Your task to perform on an android device: Open Google Chrome Image 0: 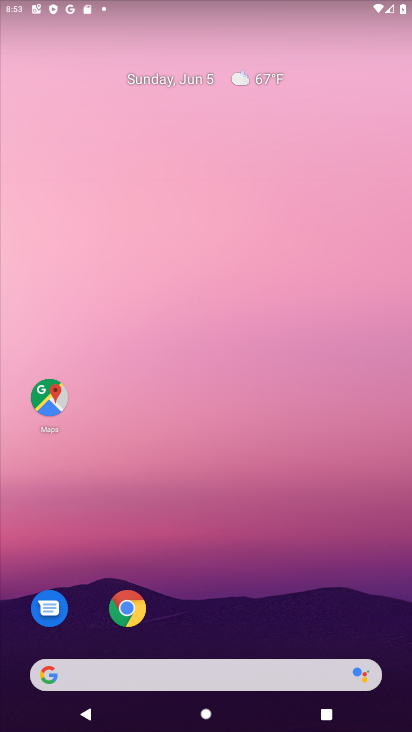
Step 0: click (109, 609)
Your task to perform on an android device: Open Google Chrome Image 1: 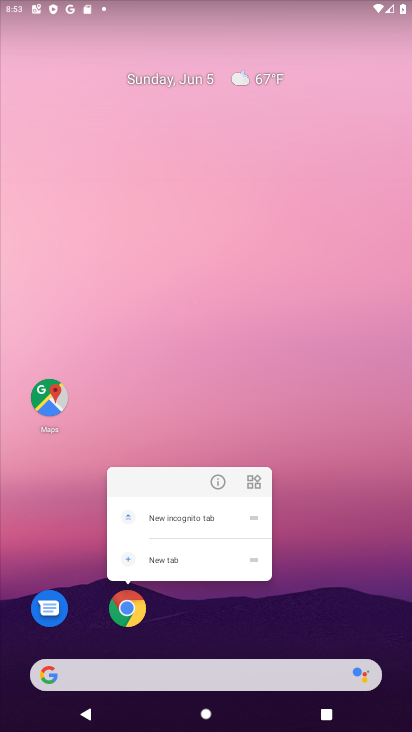
Step 1: click (138, 609)
Your task to perform on an android device: Open Google Chrome Image 2: 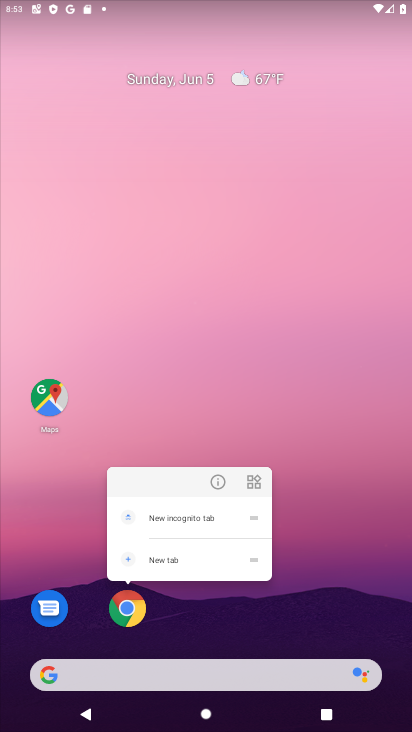
Step 2: click (118, 606)
Your task to perform on an android device: Open Google Chrome Image 3: 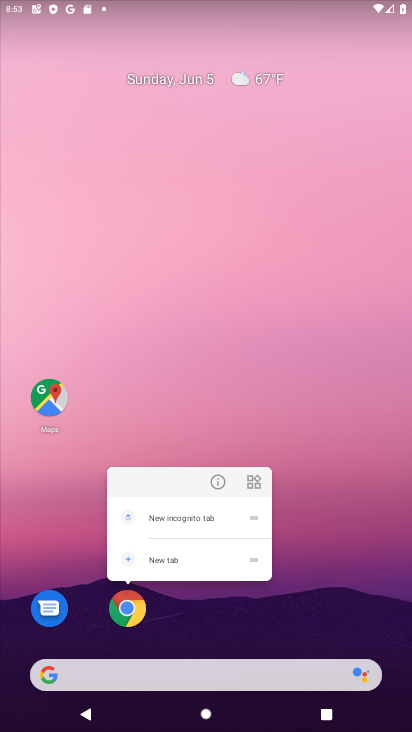
Step 3: click (118, 606)
Your task to perform on an android device: Open Google Chrome Image 4: 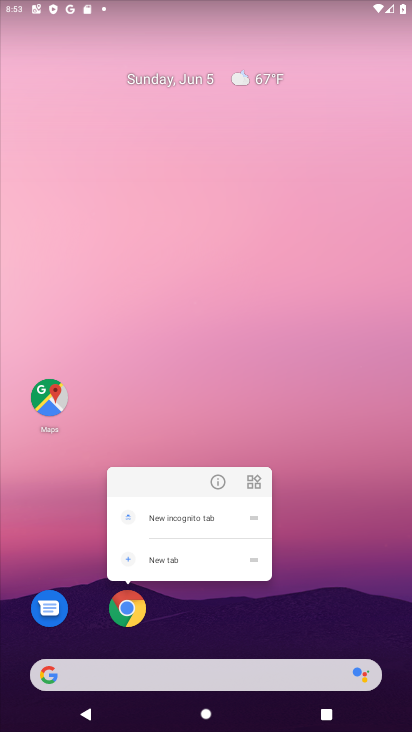
Step 4: click (138, 595)
Your task to perform on an android device: Open Google Chrome Image 5: 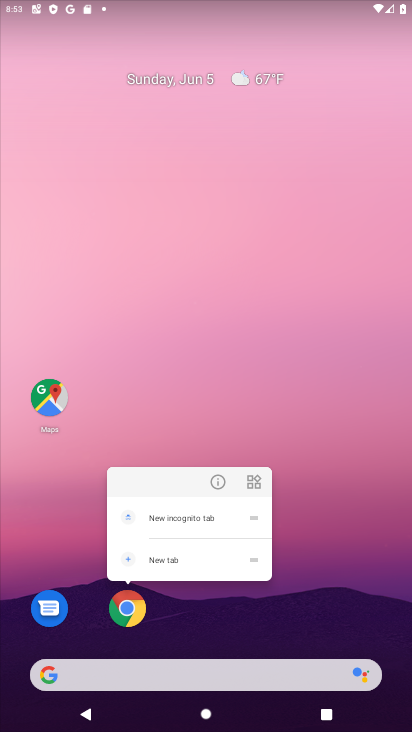
Step 5: click (126, 603)
Your task to perform on an android device: Open Google Chrome Image 6: 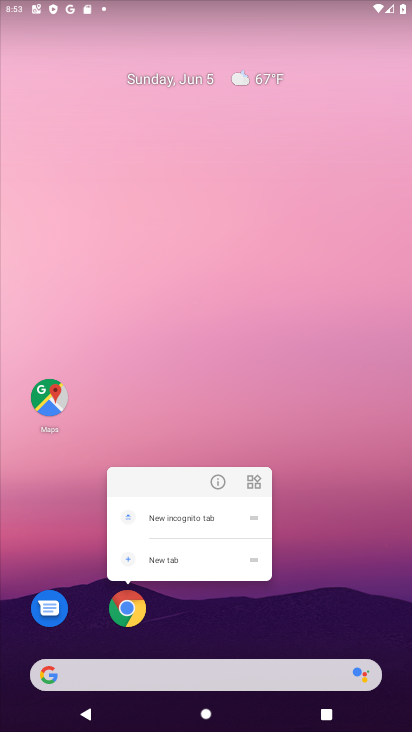
Step 6: click (126, 601)
Your task to perform on an android device: Open Google Chrome Image 7: 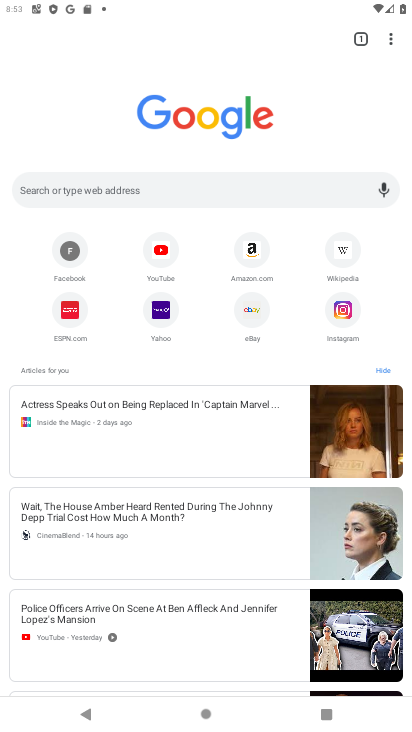
Step 7: task complete